Your task to perform on an android device: turn on wifi Image 0: 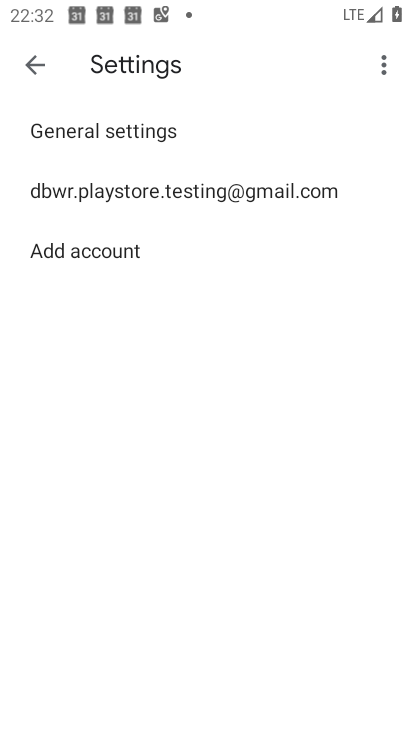
Step 0: press home button
Your task to perform on an android device: turn on wifi Image 1: 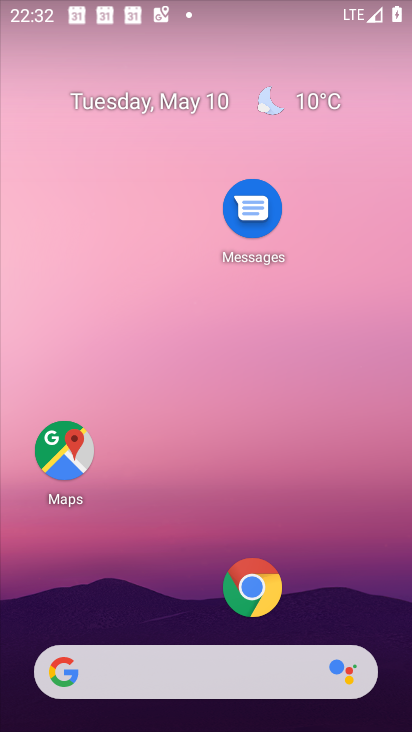
Step 1: drag from (173, 538) to (204, 116)
Your task to perform on an android device: turn on wifi Image 2: 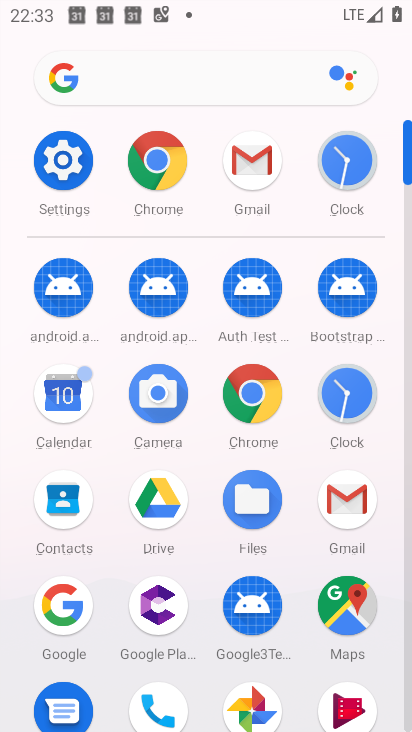
Step 2: click (64, 171)
Your task to perform on an android device: turn on wifi Image 3: 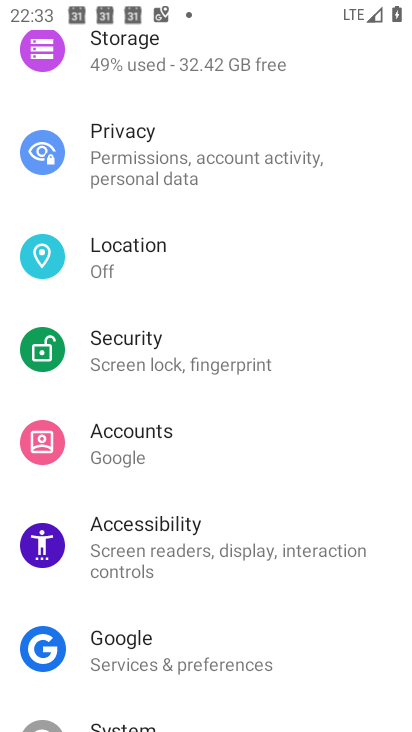
Step 3: drag from (188, 224) to (183, 504)
Your task to perform on an android device: turn on wifi Image 4: 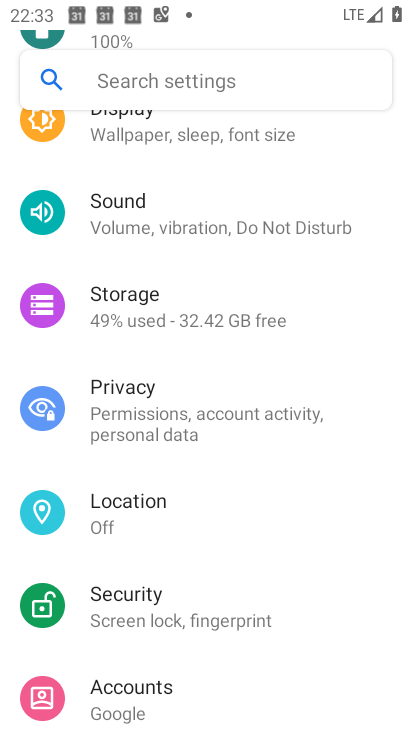
Step 4: drag from (176, 221) to (187, 514)
Your task to perform on an android device: turn on wifi Image 5: 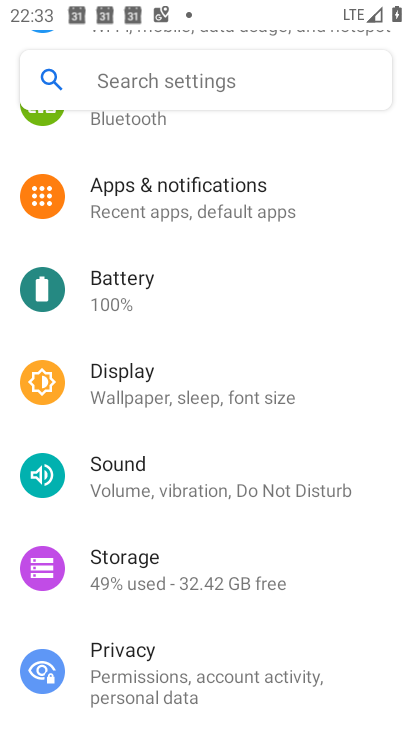
Step 5: drag from (155, 168) to (170, 445)
Your task to perform on an android device: turn on wifi Image 6: 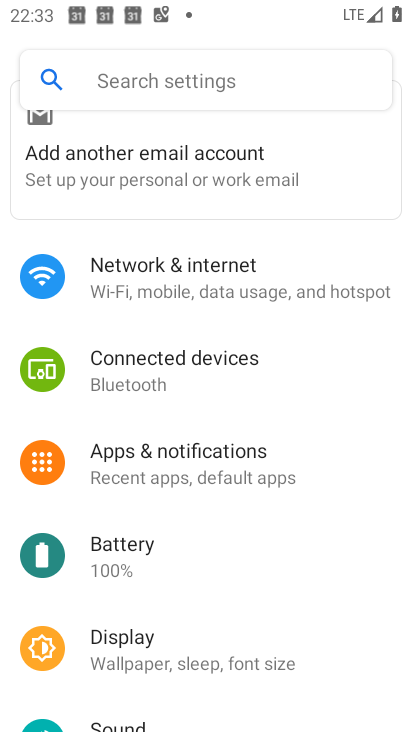
Step 6: click (152, 294)
Your task to perform on an android device: turn on wifi Image 7: 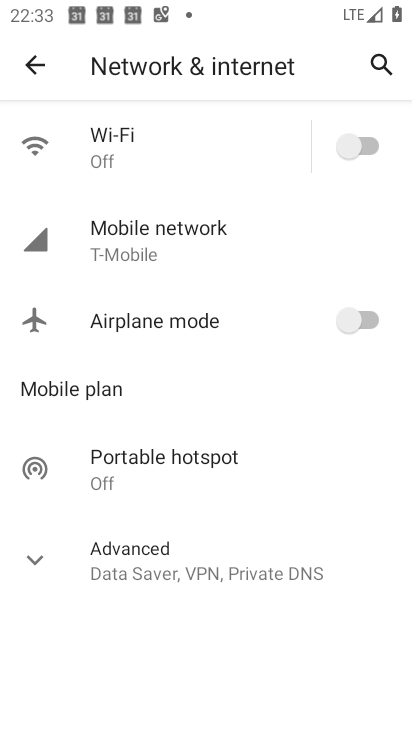
Step 7: click (368, 144)
Your task to perform on an android device: turn on wifi Image 8: 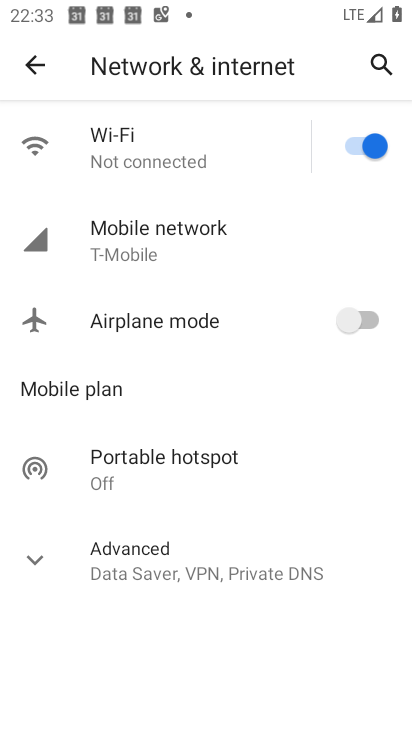
Step 8: task complete